Your task to perform on an android device: Turn on the flashlight Image 0: 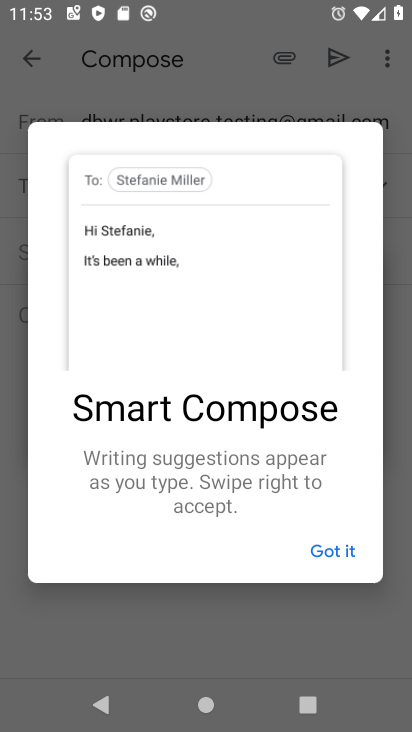
Step 0: press home button
Your task to perform on an android device: Turn on the flashlight Image 1: 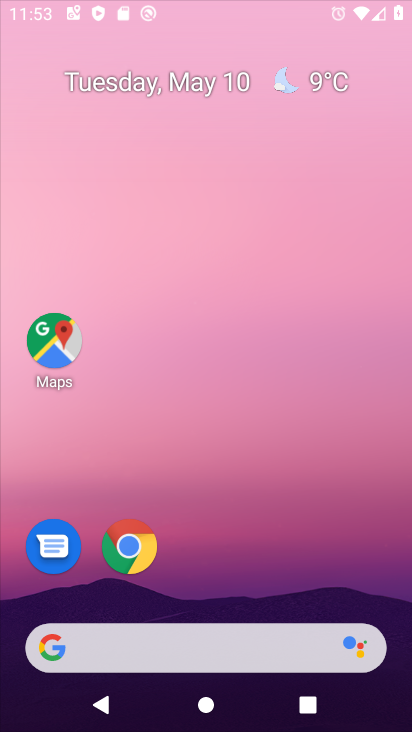
Step 1: drag from (244, 563) to (306, 343)
Your task to perform on an android device: Turn on the flashlight Image 2: 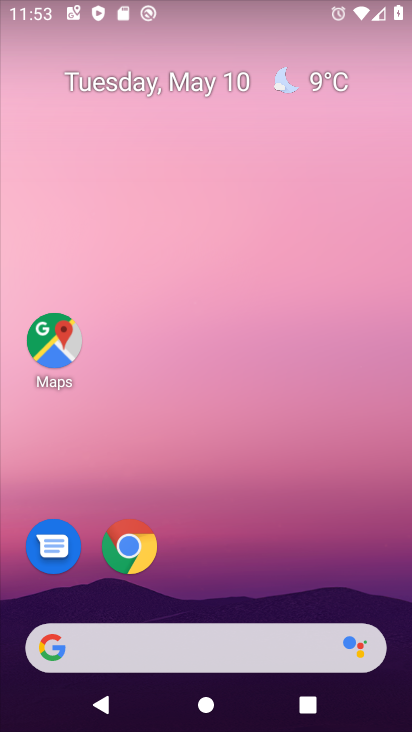
Step 2: drag from (197, 591) to (316, 131)
Your task to perform on an android device: Turn on the flashlight Image 3: 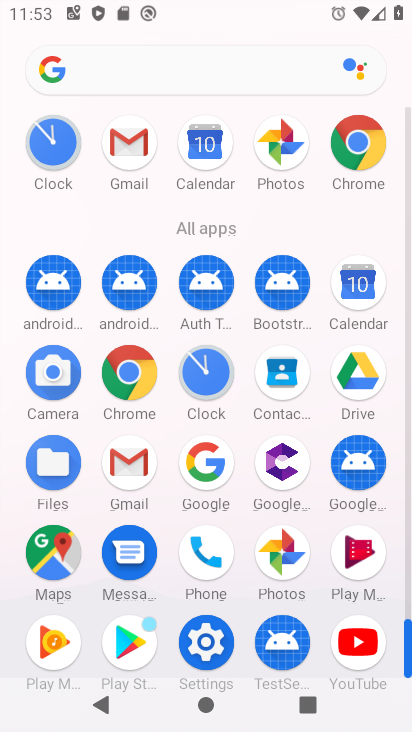
Step 3: click (185, 78)
Your task to perform on an android device: Turn on the flashlight Image 4: 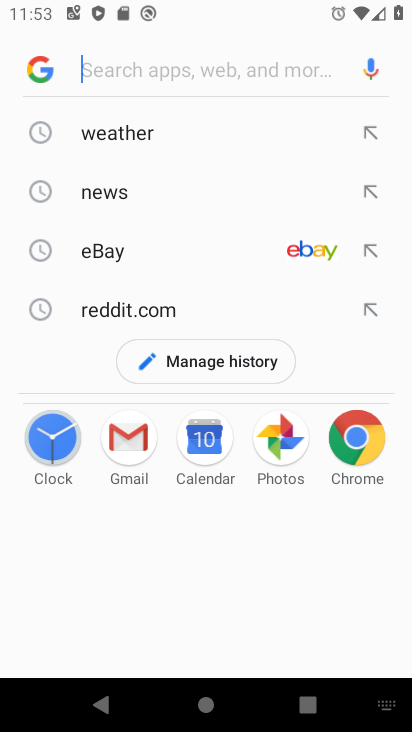
Step 4: press back button
Your task to perform on an android device: Turn on the flashlight Image 5: 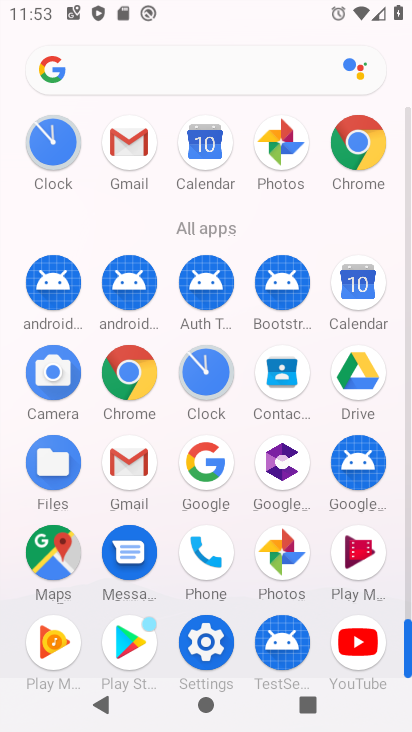
Step 5: click (200, 639)
Your task to perform on an android device: Turn on the flashlight Image 6: 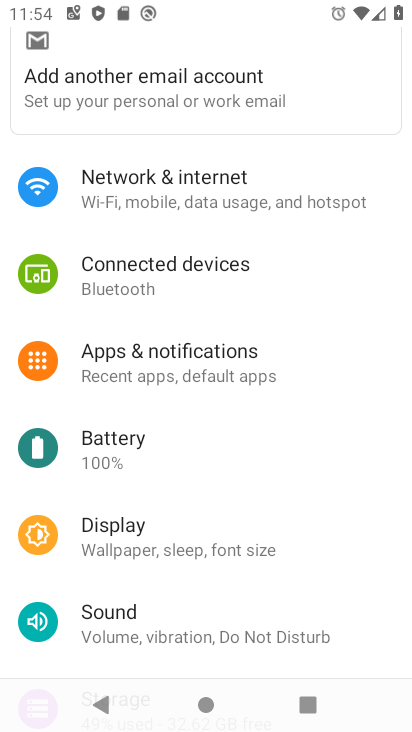
Step 6: drag from (181, 627) to (301, 396)
Your task to perform on an android device: Turn on the flashlight Image 7: 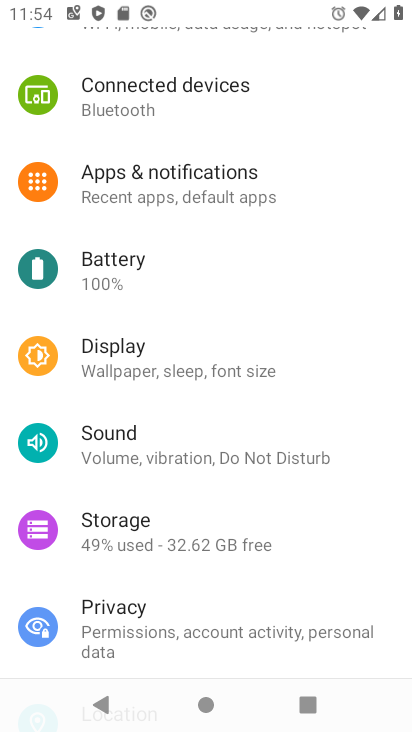
Step 7: drag from (263, 363) to (276, 707)
Your task to perform on an android device: Turn on the flashlight Image 8: 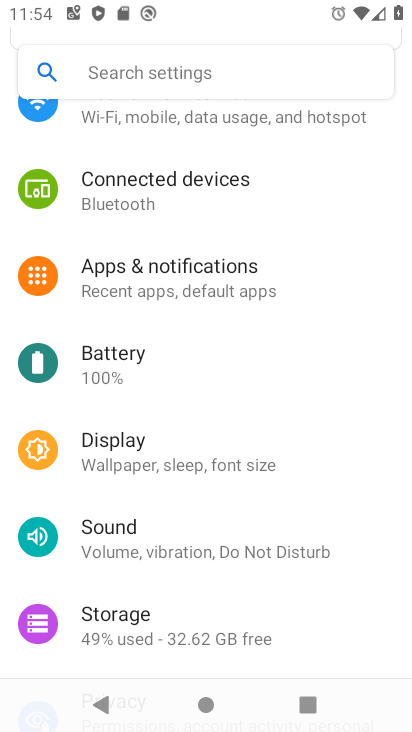
Step 8: click (153, 72)
Your task to perform on an android device: Turn on the flashlight Image 9: 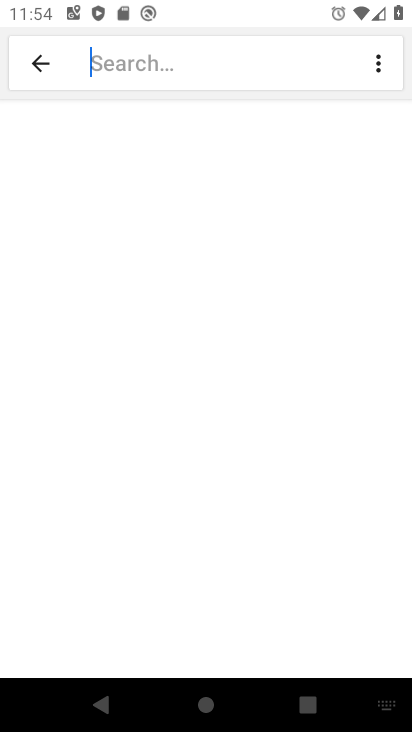
Step 9: drag from (186, 520) to (264, 210)
Your task to perform on an android device: Turn on the flashlight Image 10: 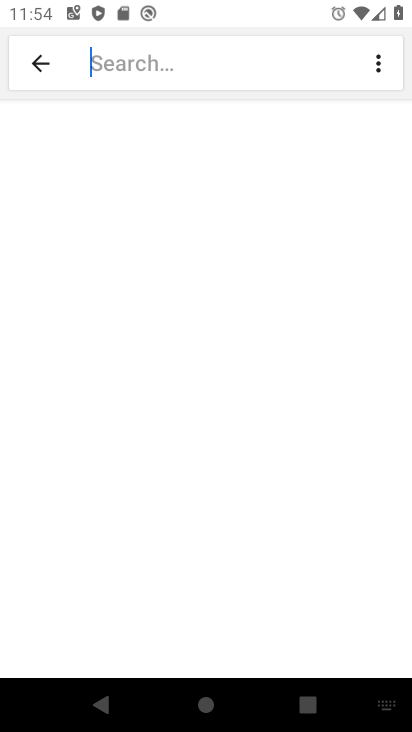
Step 10: click (155, 56)
Your task to perform on an android device: Turn on the flashlight Image 11: 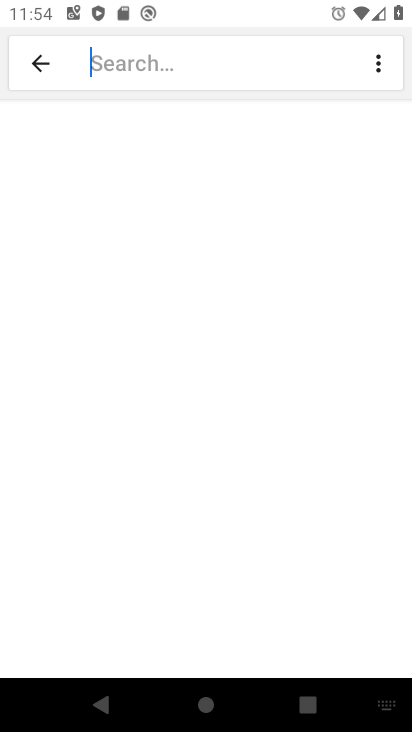
Step 11: click (155, 56)
Your task to perform on an android device: Turn on the flashlight Image 12: 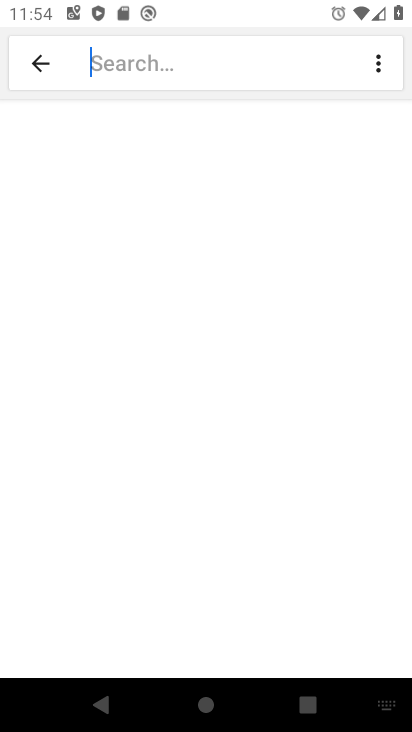
Step 12: type "flashlight"
Your task to perform on an android device: Turn on the flashlight Image 13: 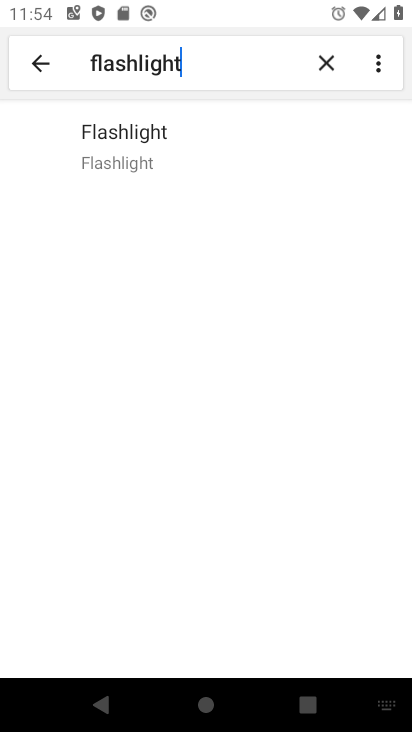
Step 13: click (175, 148)
Your task to perform on an android device: Turn on the flashlight Image 14: 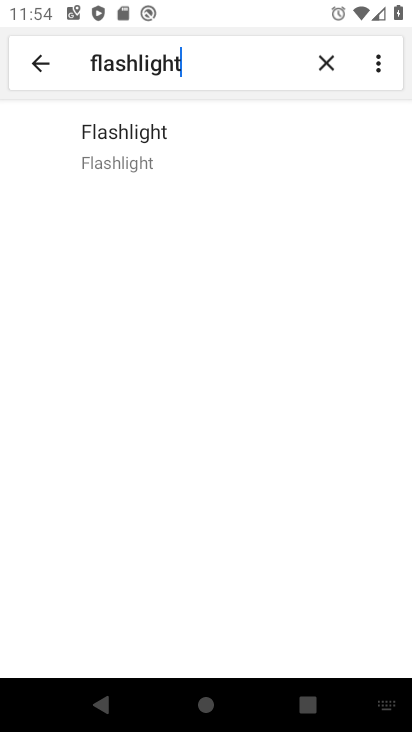
Step 14: task complete